Your task to perform on an android device: change notification settings in the gmail app Image 0: 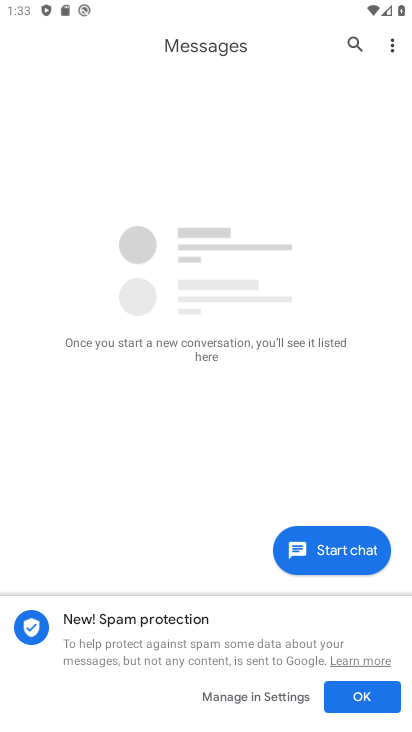
Step 0: press home button
Your task to perform on an android device: change notification settings in the gmail app Image 1: 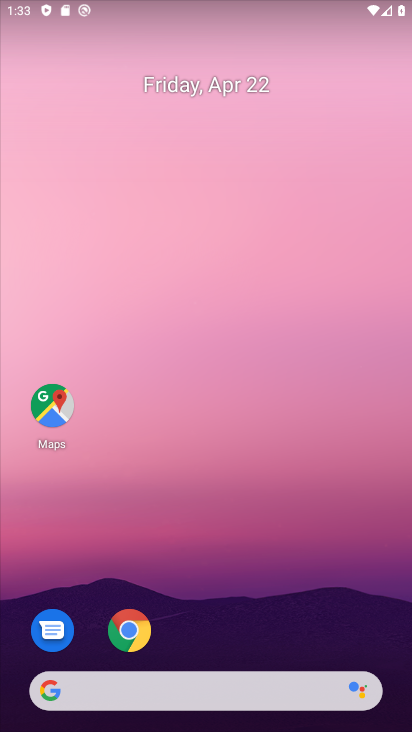
Step 1: drag from (371, 616) to (326, 164)
Your task to perform on an android device: change notification settings in the gmail app Image 2: 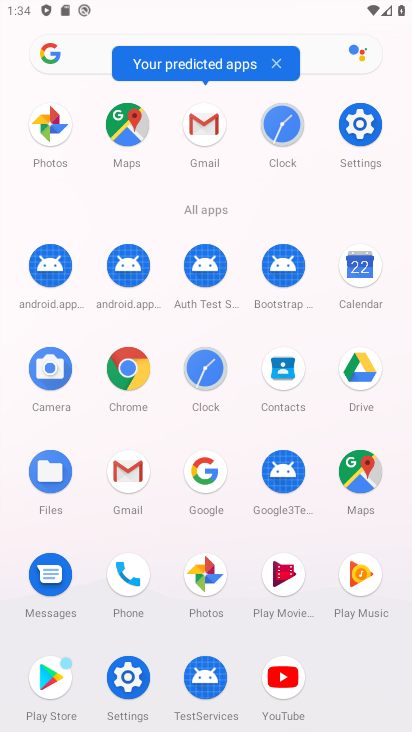
Step 2: click (134, 479)
Your task to perform on an android device: change notification settings in the gmail app Image 3: 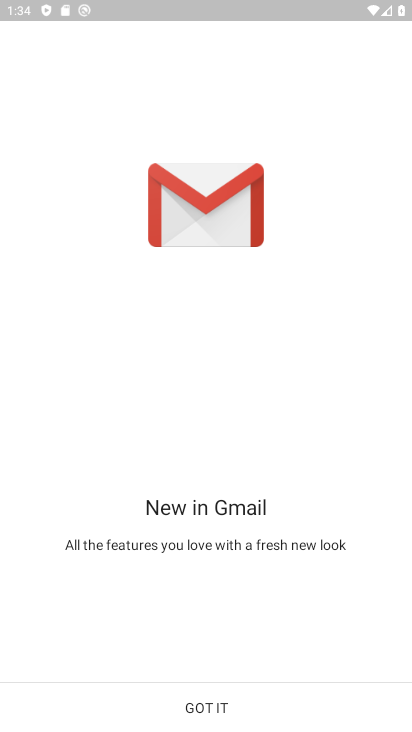
Step 3: click (177, 709)
Your task to perform on an android device: change notification settings in the gmail app Image 4: 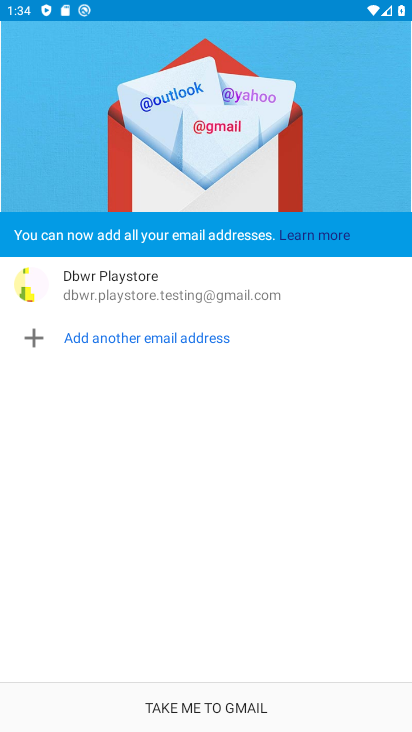
Step 4: click (173, 708)
Your task to perform on an android device: change notification settings in the gmail app Image 5: 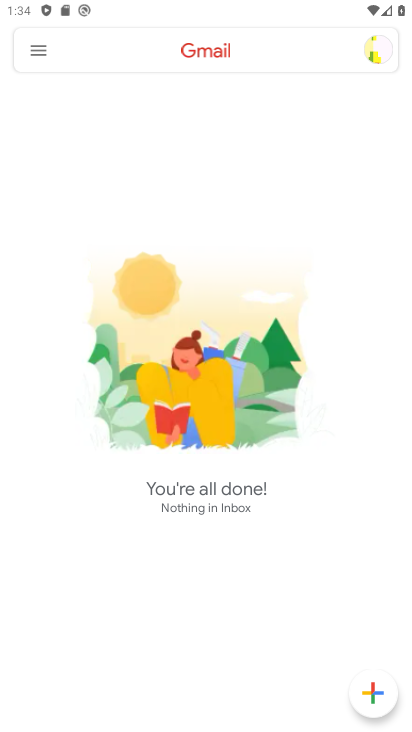
Step 5: click (34, 39)
Your task to perform on an android device: change notification settings in the gmail app Image 6: 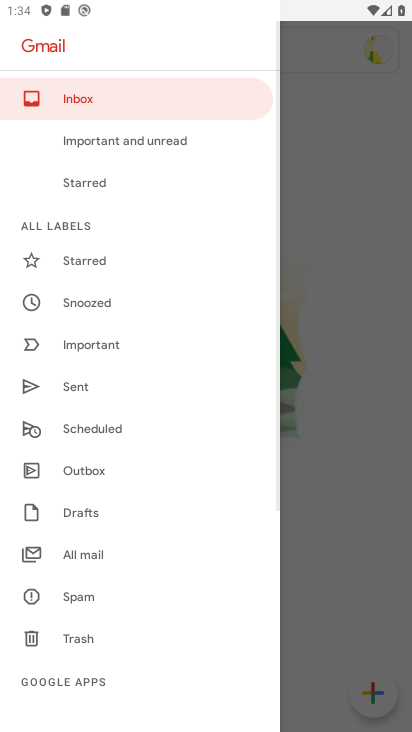
Step 6: drag from (118, 635) to (183, 212)
Your task to perform on an android device: change notification settings in the gmail app Image 7: 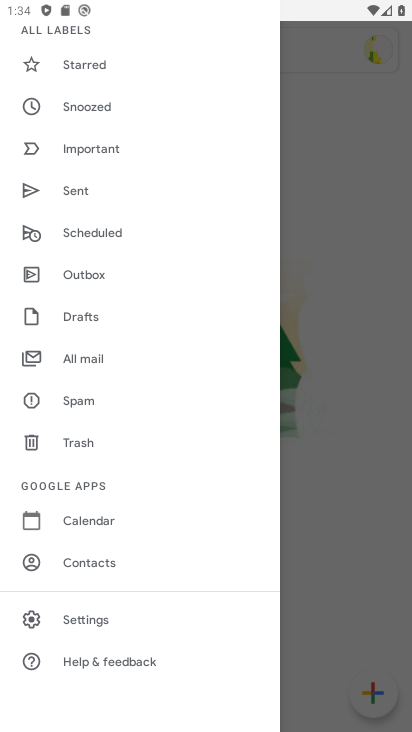
Step 7: click (83, 617)
Your task to perform on an android device: change notification settings in the gmail app Image 8: 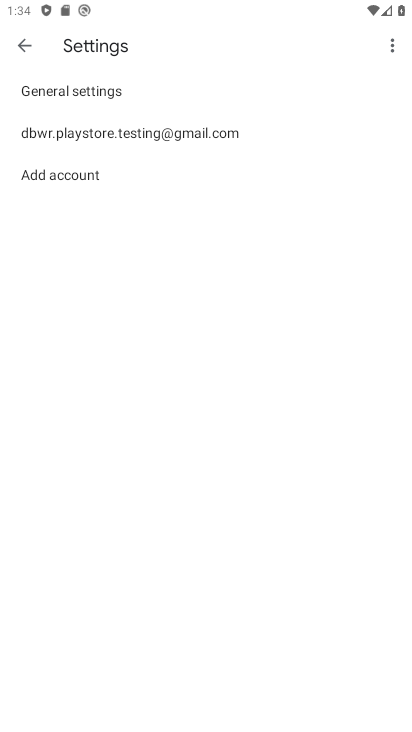
Step 8: click (98, 134)
Your task to perform on an android device: change notification settings in the gmail app Image 9: 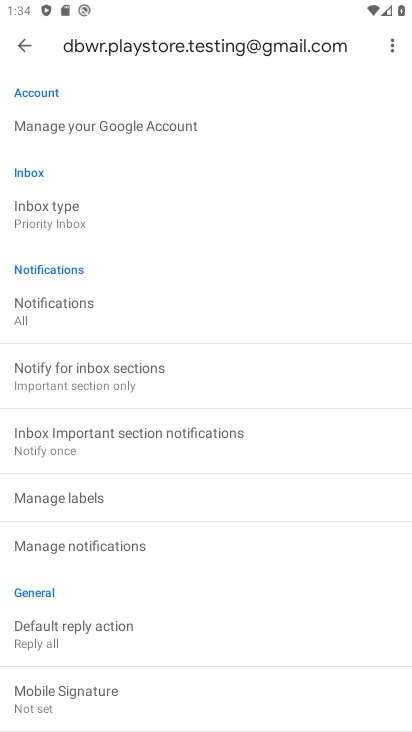
Step 9: click (72, 311)
Your task to perform on an android device: change notification settings in the gmail app Image 10: 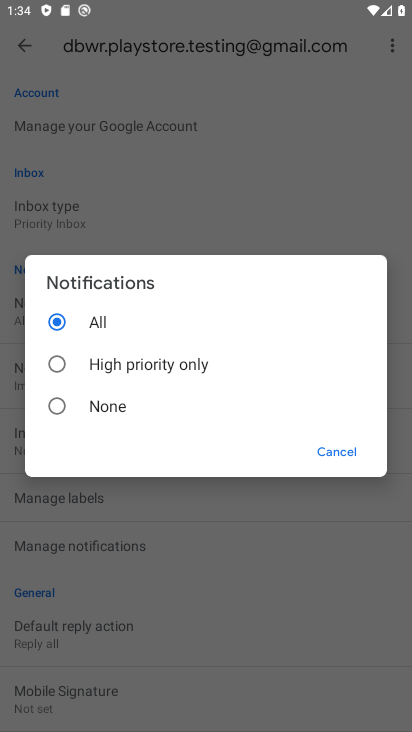
Step 10: click (101, 366)
Your task to perform on an android device: change notification settings in the gmail app Image 11: 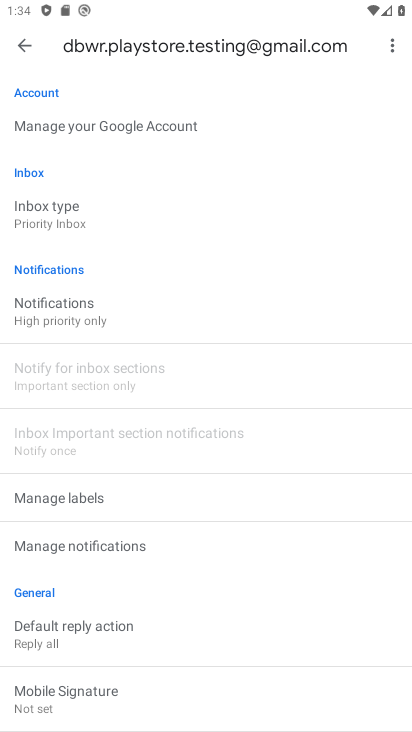
Step 11: task complete